Your task to perform on an android device: Go to settings Image 0: 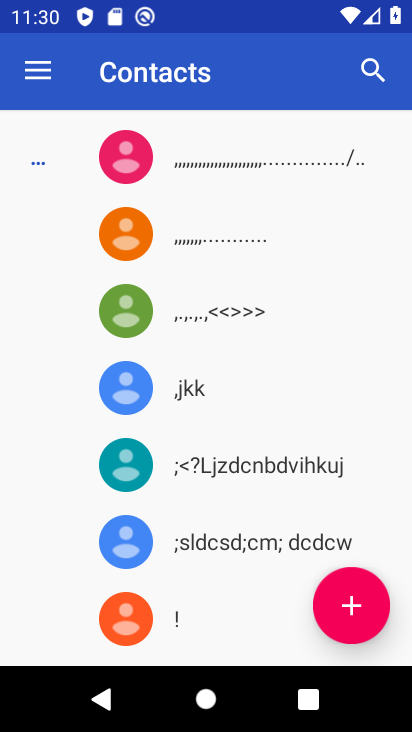
Step 0: press home button
Your task to perform on an android device: Go to settings Image 1: 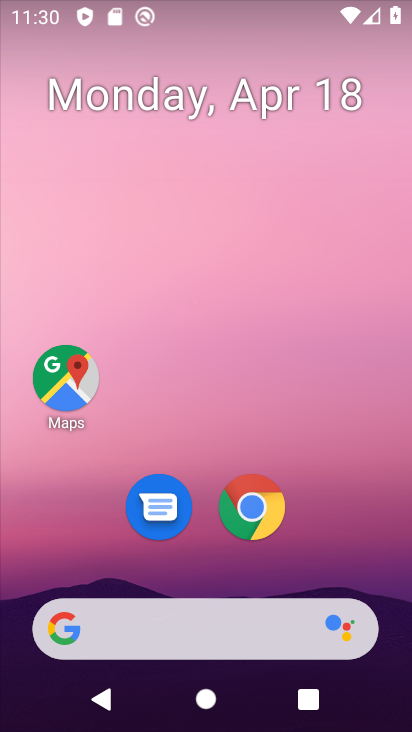
Step 1: drag from (346, 547) to (345, 103)
Your task to perform on an android device: Go to settings Image 2: 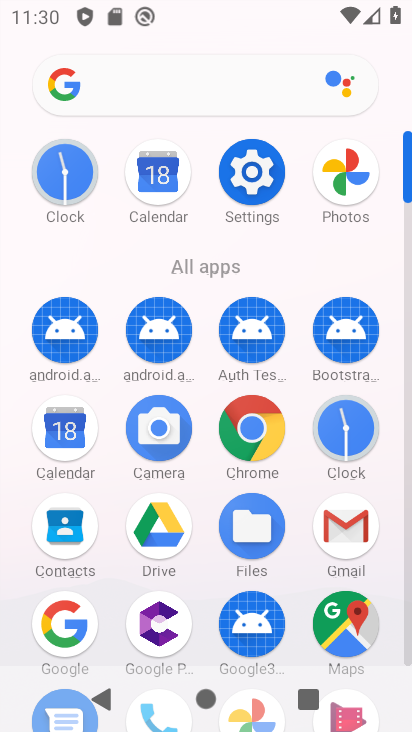
Step 2: click (260, 174)
Your task to perform on an android device: Go to settings Image 3: 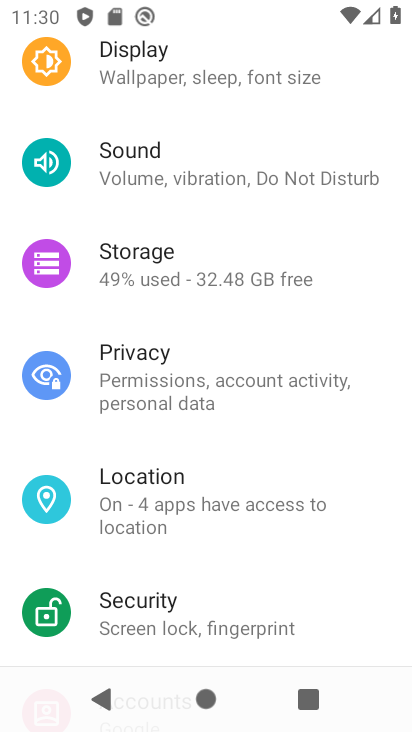
Step 3: task complete